Your task to perform on an android device: Open maps Image 0: 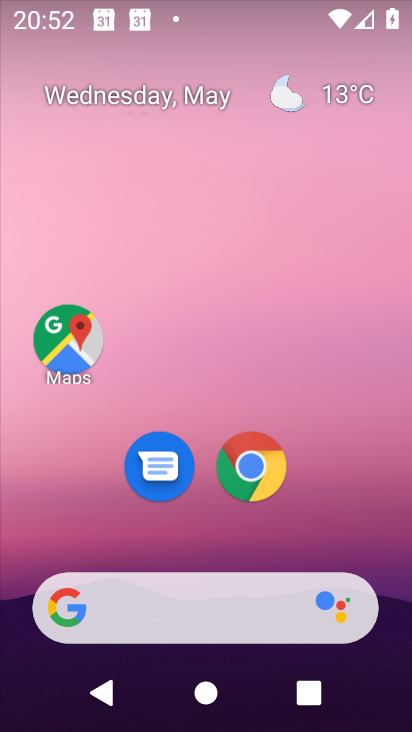
Step 0: press home button
Your task to perform on an android device: Open maps Image 1: 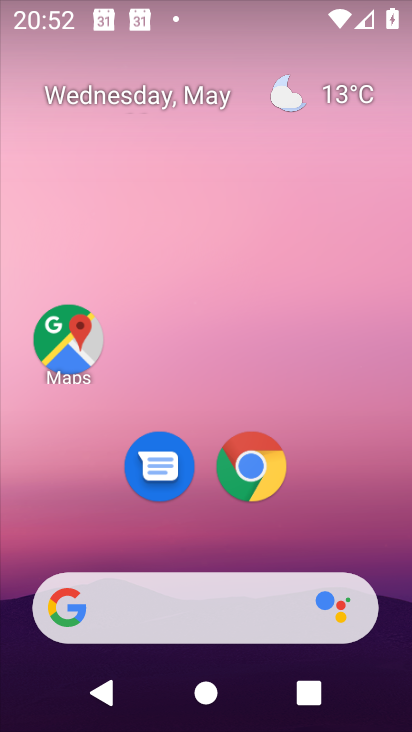
Step 1: drag from (207, 534) to (220, 59)
Your task to perform on an android device: Open maps Image 2: 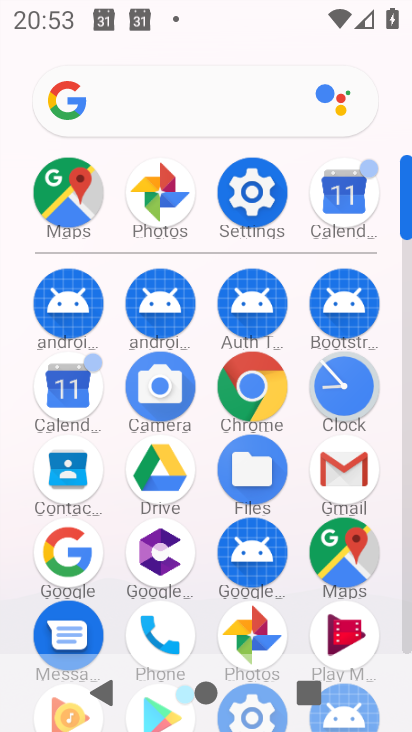
Step 2: click (67, 189)
Your task to perform on an android device: Open maps Image 3: 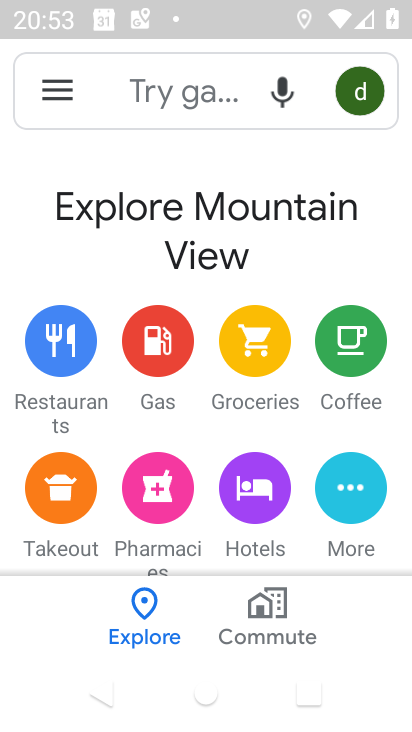
Step 3: drag from (216, 171) to (174, 633)
Your task to perform on an android device: Open maps Image 4: 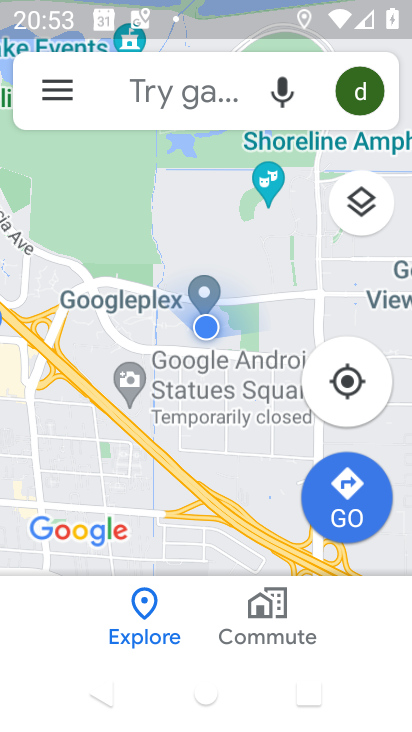
Step 4: click (60, 87)
Your task to perform on an android device: Open maps Image 5: 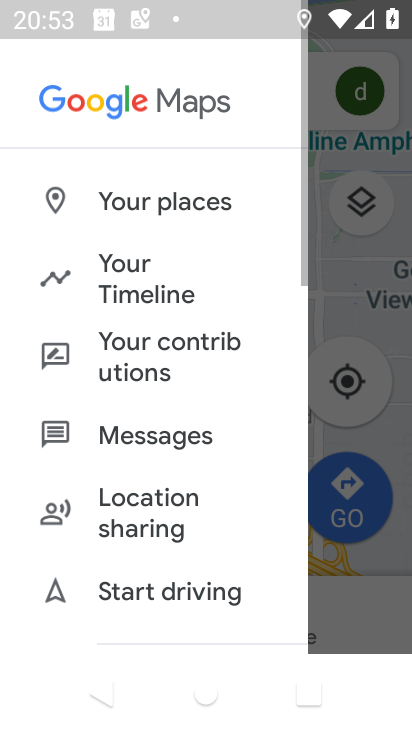
Step 5: task complete